Your task to perform on an android device: Go to location settings Image 0: 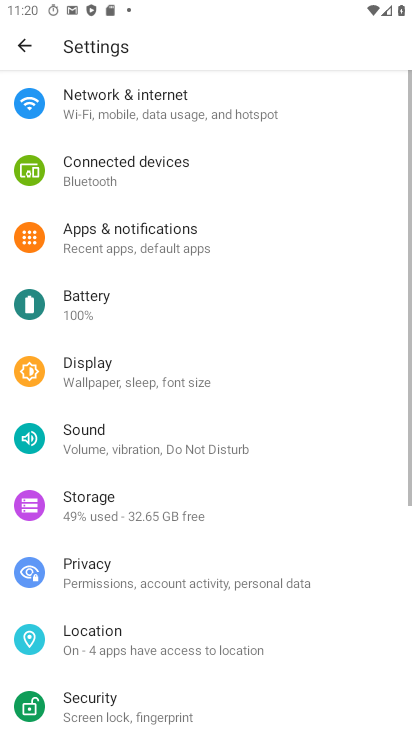
Step 0: press home button
Your task to perform on an android device: Go to location settings Image 1: 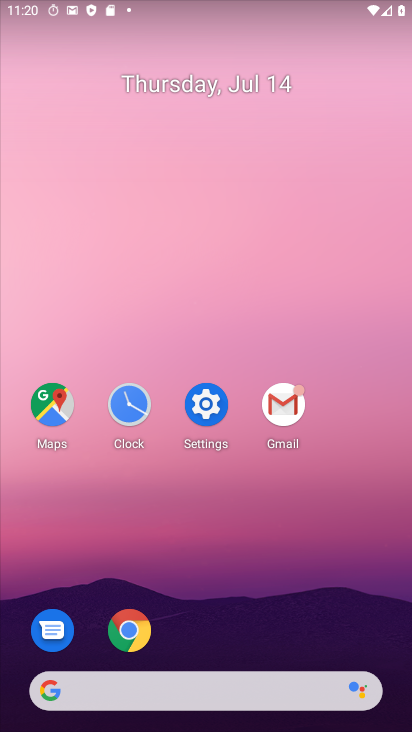
Step 1: click (194, 414)
Your task to perform on an android device: Go to location settings Image 2: 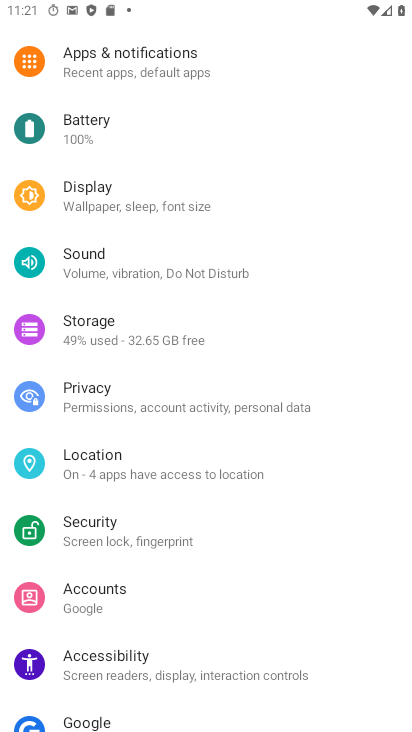
Step 2: click (80, 471)
Your task to perform on an android device: Go to location settings Image 3: 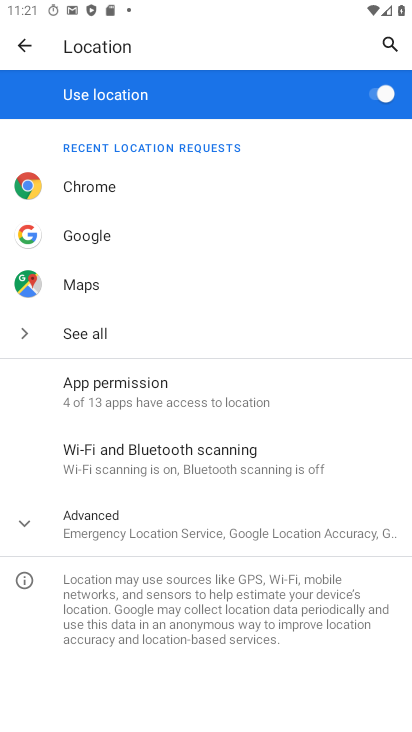
Step 3: click (22, 517)
Your task to perform on an android device: Go to location settings Image 4: 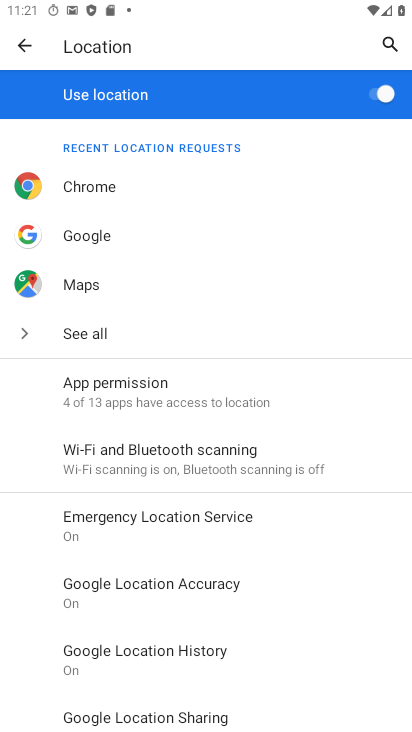
Step 4: task complete